Your task to perform on an android device: Open notification settings Image 0: 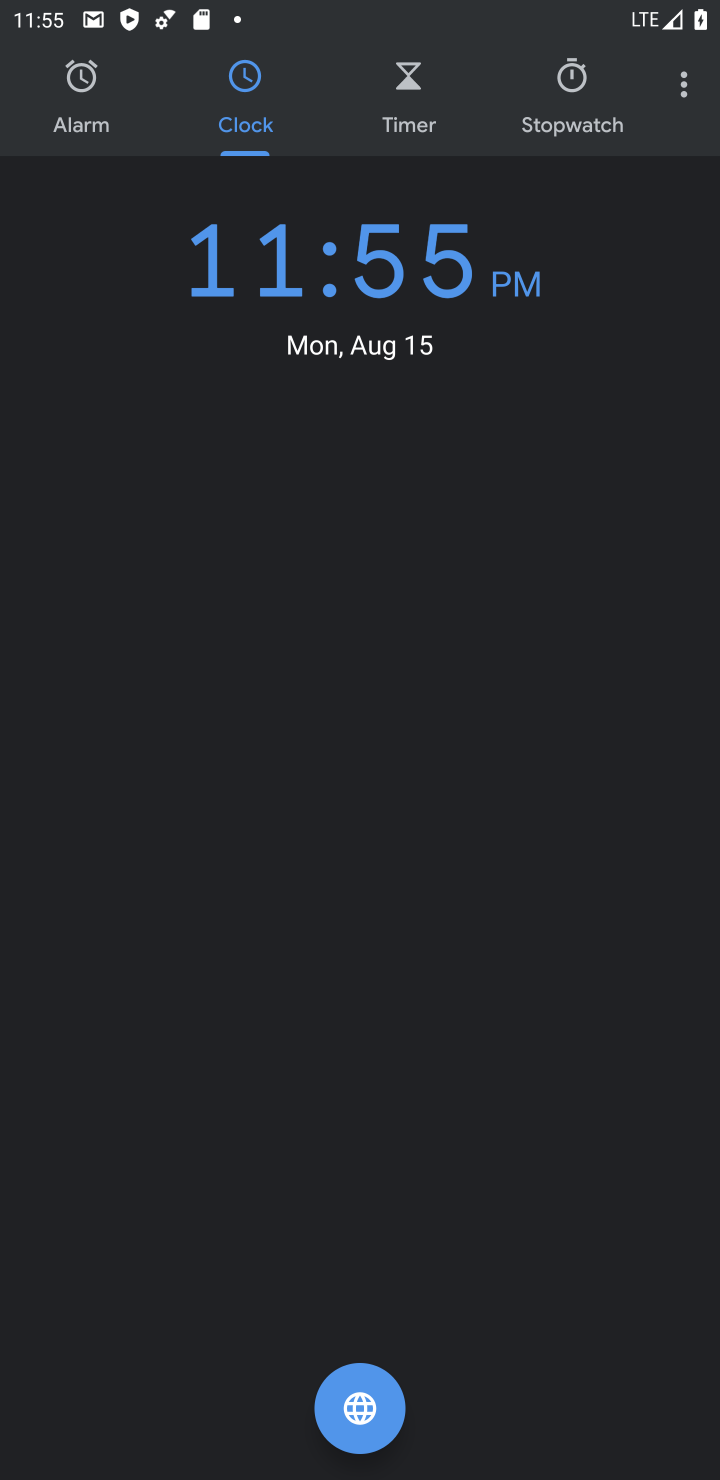
Step 0: press home button
Your task to perform on an android device: Open notification settings Image 1: 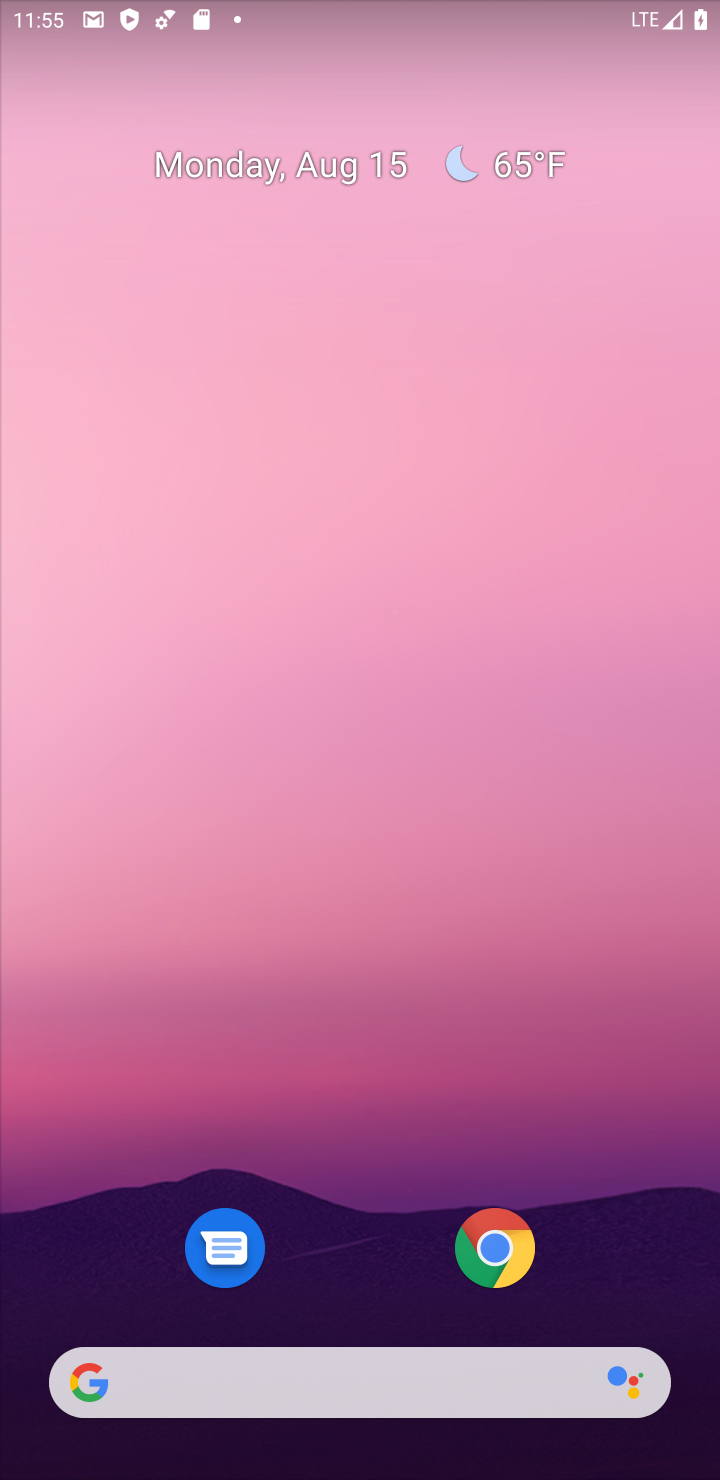
Step 1: drag from (404, 1286) to (388, 195)
Your task to perform on an android device: Open notification settings Image 2: 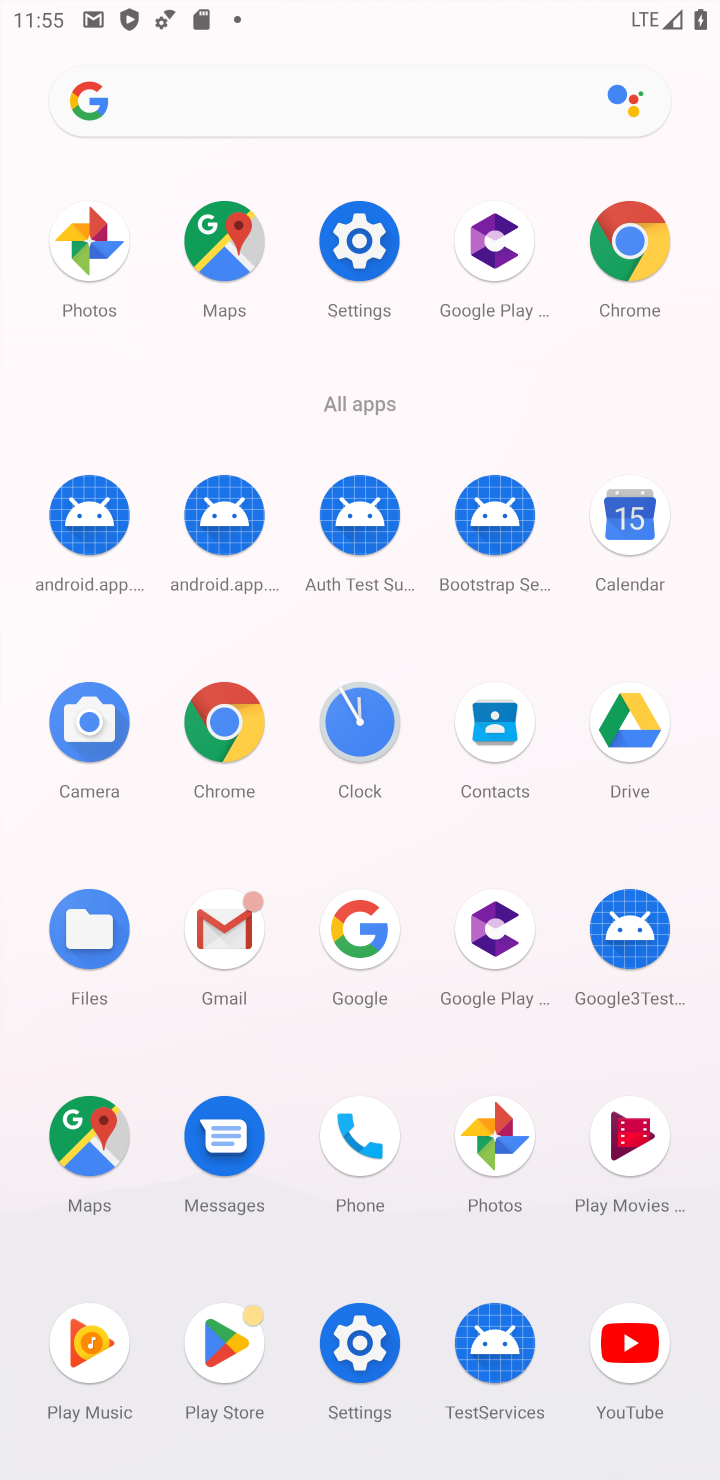
Step 2: click (371, 329)
Your task to perform on an android device: Open notification settings Image 3: 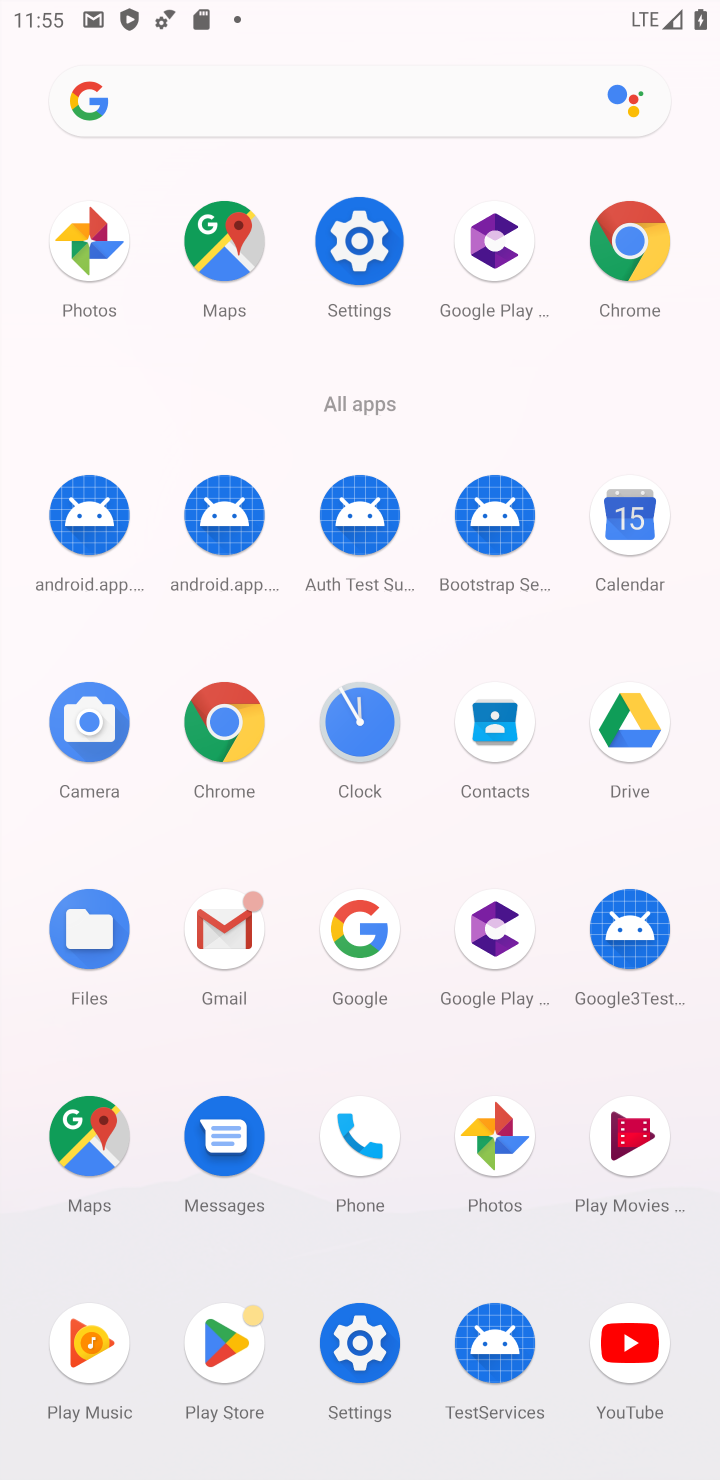
Step 3: click (364, 297)
Your task to perform on an android device: Open notification settings Image 4: 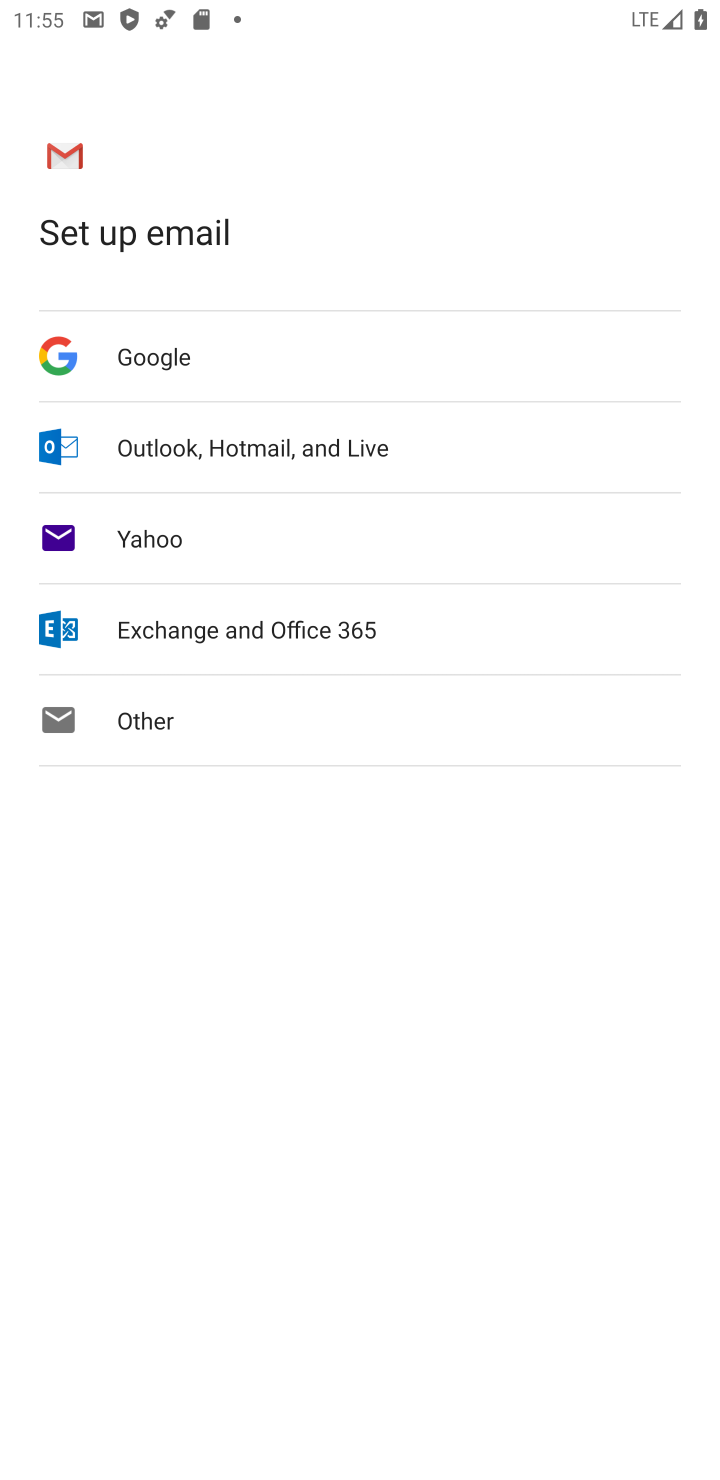
Step 4: task complete